Your task to perform on an android device: open chrome and create a bookmark for the current page Image 0: 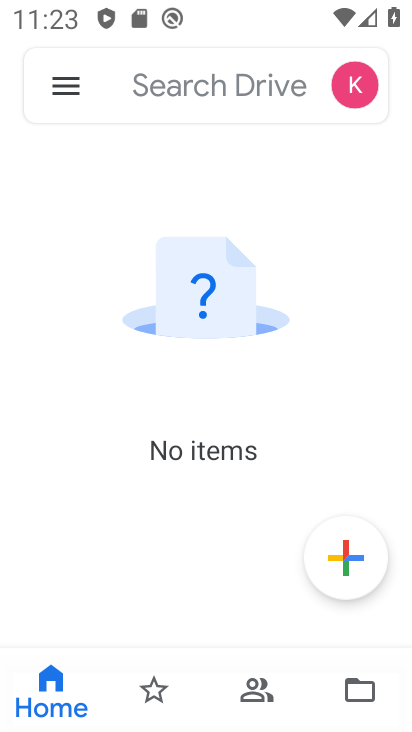
Step 0: press home button
Your task to perform on an android device: open chrome and create a bookmark for the current page Image 1: 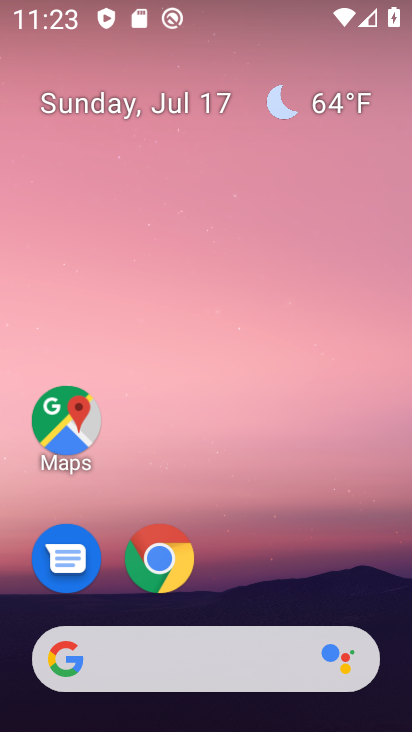
Step 1: drag from (339, 575) to (347, 102)
Your task to perform on an android device: open chrome and create a bookmark for the current page Image 2: 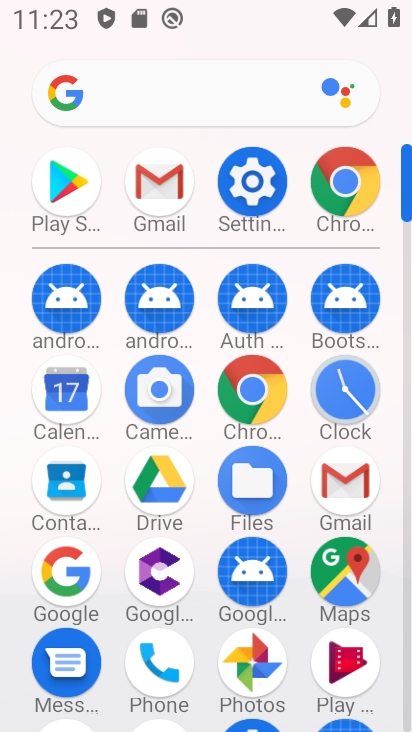
Step 2: click (355, 200)
Your task to perform on an android device: open chrome and create a bookmark for the current page Image 3: 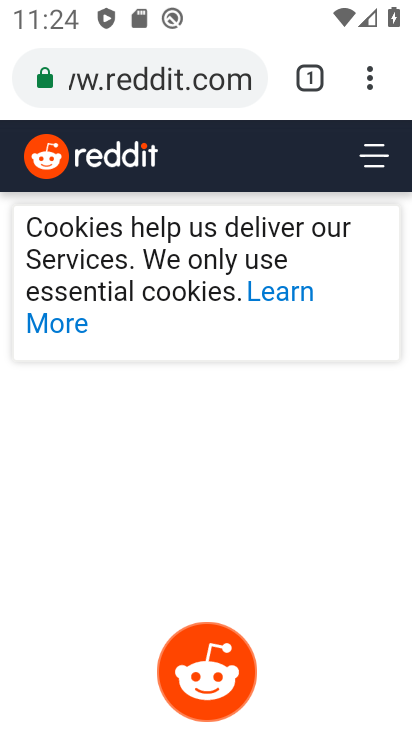
Step 3: click (370, 84)
Your task to perform on an android device: open chrome and create a bookmark for the current page Image 4: 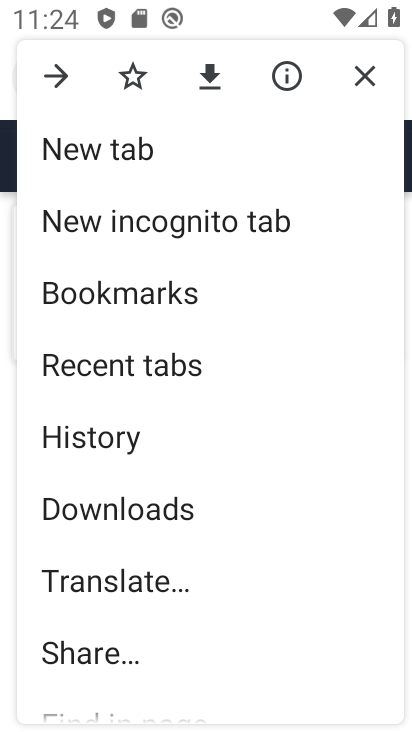
Step 4: click (128, 81)
Your task to perform on an android device: open chrome and create a bookmark for the current page Image 5: 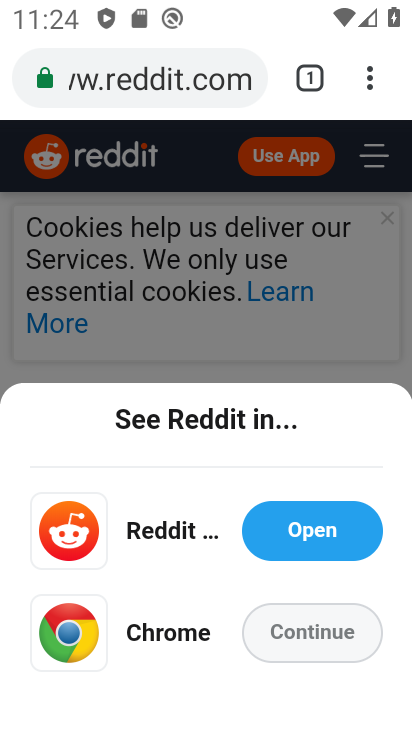
Step 5: task complete